Your task to perform on an android device: What's the weather today? Image 0: 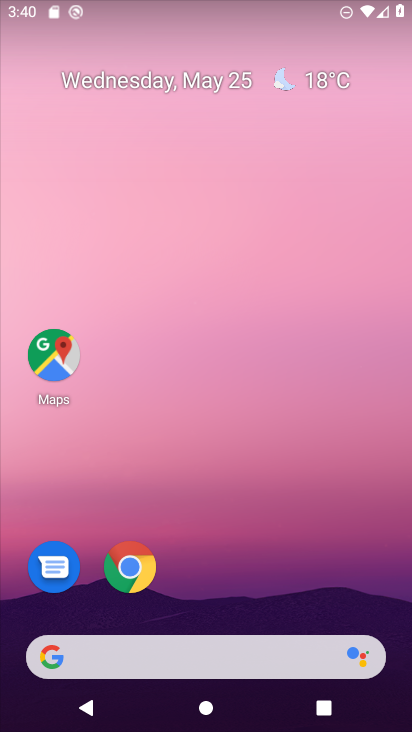
Step 0: click (291, 647)
Your task to perform on an android device: What's the weather today? Image 1: 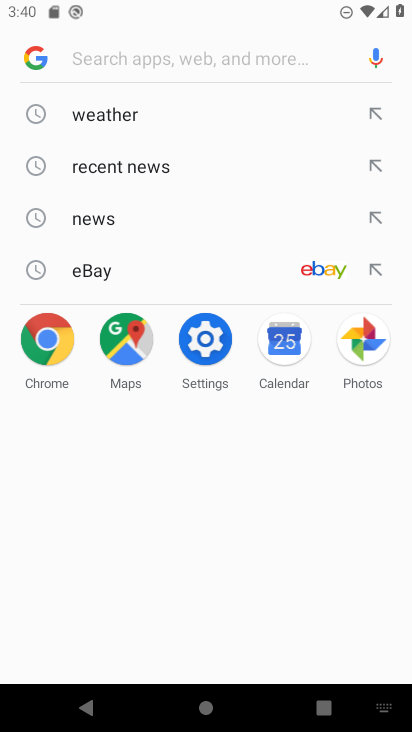
Step 1: click (130, 115)
Your task to perform on an android device: What's the weather today? Image 2: 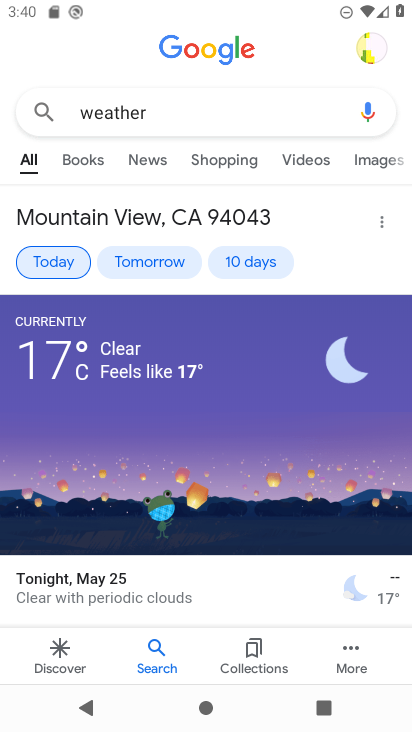
Step 2: task complete